Your task to perform on an android device: Show me popular videos on Youtube Image 0: 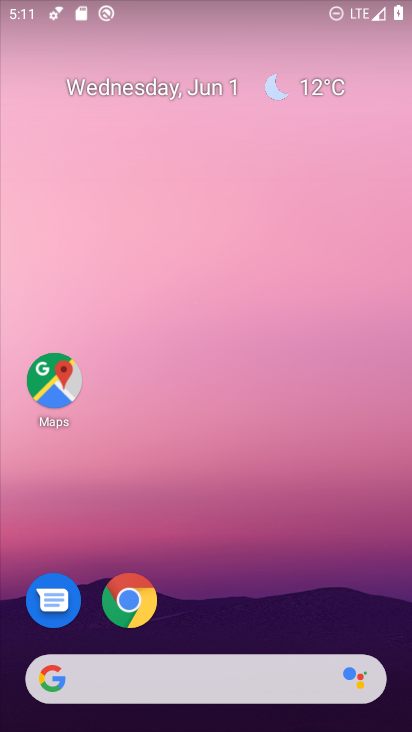
Step 0: drag from (397, 649) to (313, 108)
Your task to perform on an android device: Show me popular videos on Youtube Image 1: 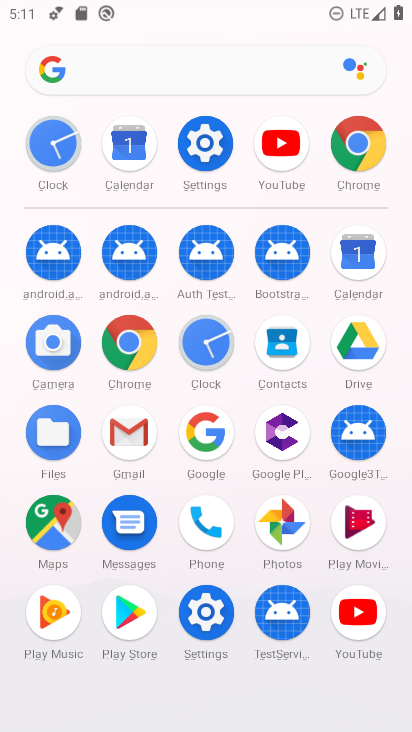
Step 1: click (355, 610)
Your task to perform on an android device: Show me popular videos on Youtube Image 2: 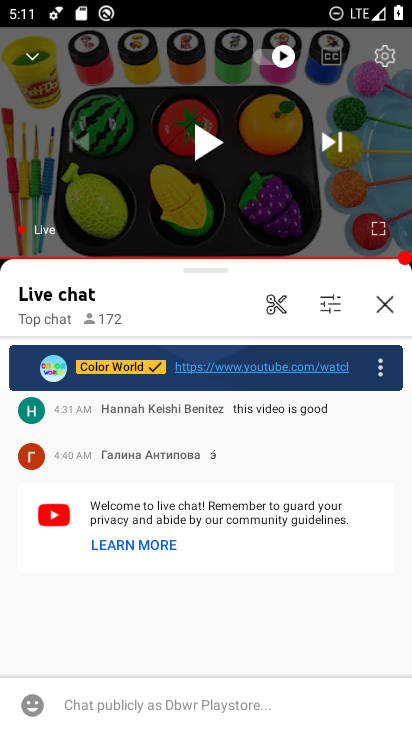
Step 2: press back button
Your task to perform on an android device: Show me popular videos on Youtube Image 3: 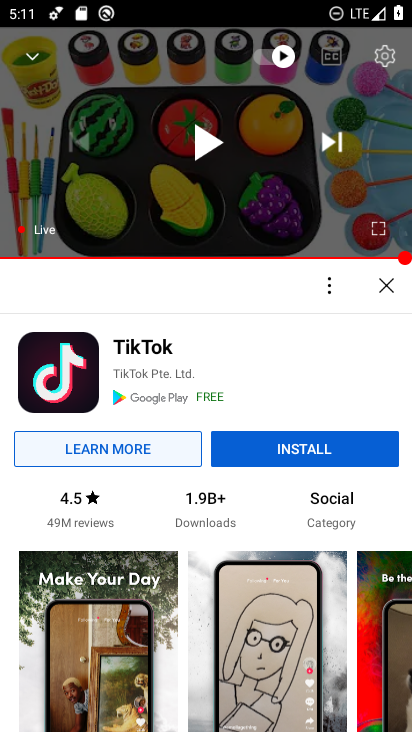
Step 3: press back button
Your task to perform on an android device: Show me popular videos on Youtube Image 4: 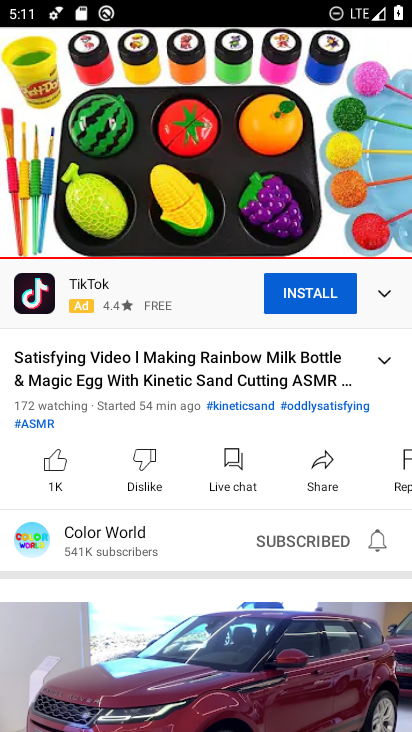
Step 4: press back button
Your task to perform on an android device: Show me popular videos on Youtube Image 5: 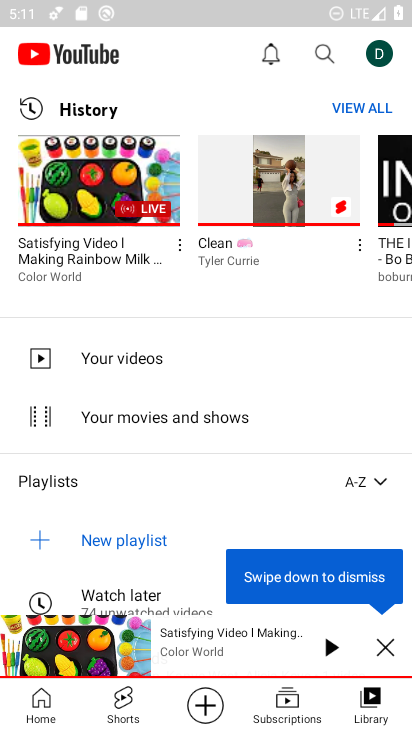
Step 5: click (48, 706)
Your task to perform on an android device: Show me popular videos on Youtube Image 6: 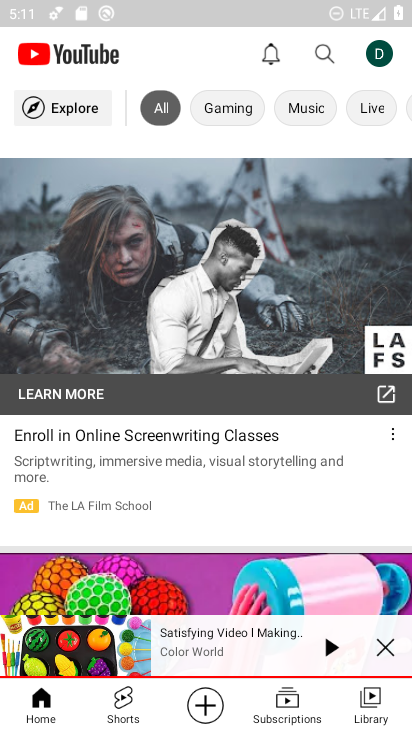
Step 6: click (74, 106)
Your task to perform on an android device: Show me popular videos on Youtube Image 7: 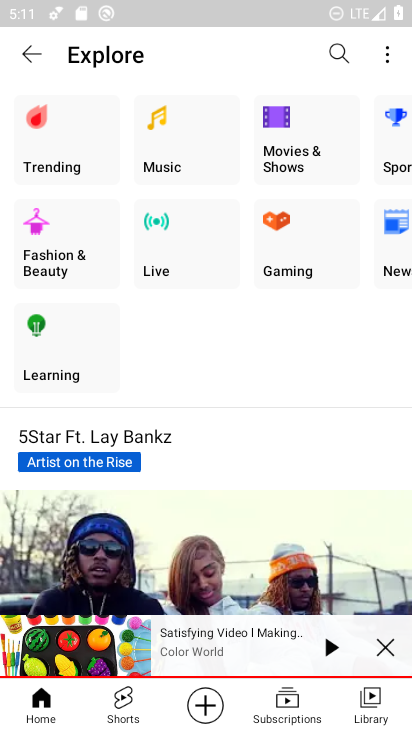
Step 7: click (27, 146)
Your task to perform on an android device: Show me popular videos on Youtube Image 8: 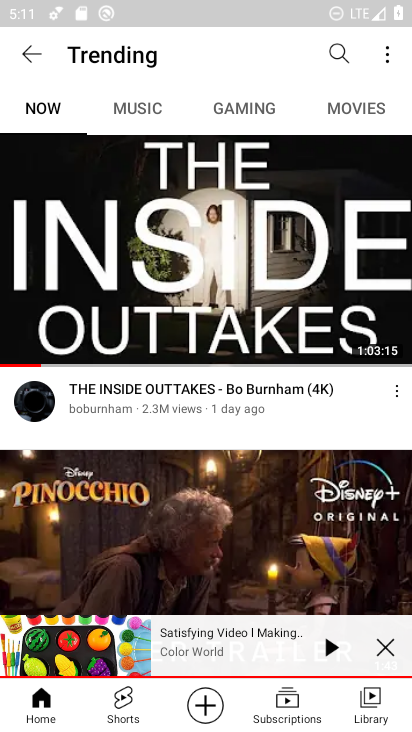
Step 8: task complete